Your task to perform on an android device: Open Google Image 0: 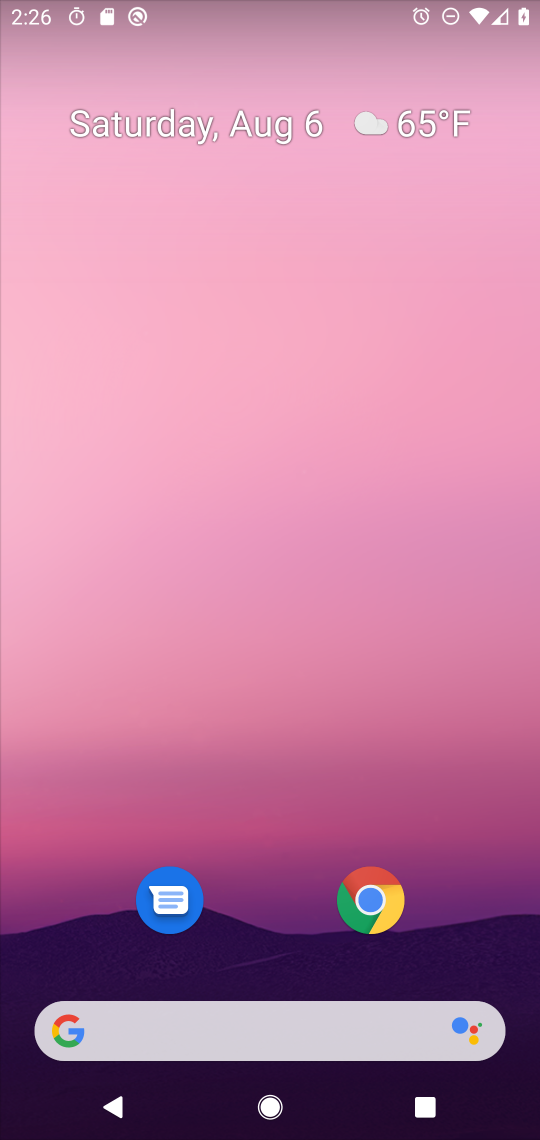
Step 0: drag from (286, 381) to (240, 1)
Your task to perform on an android device: Open Google Image 1: 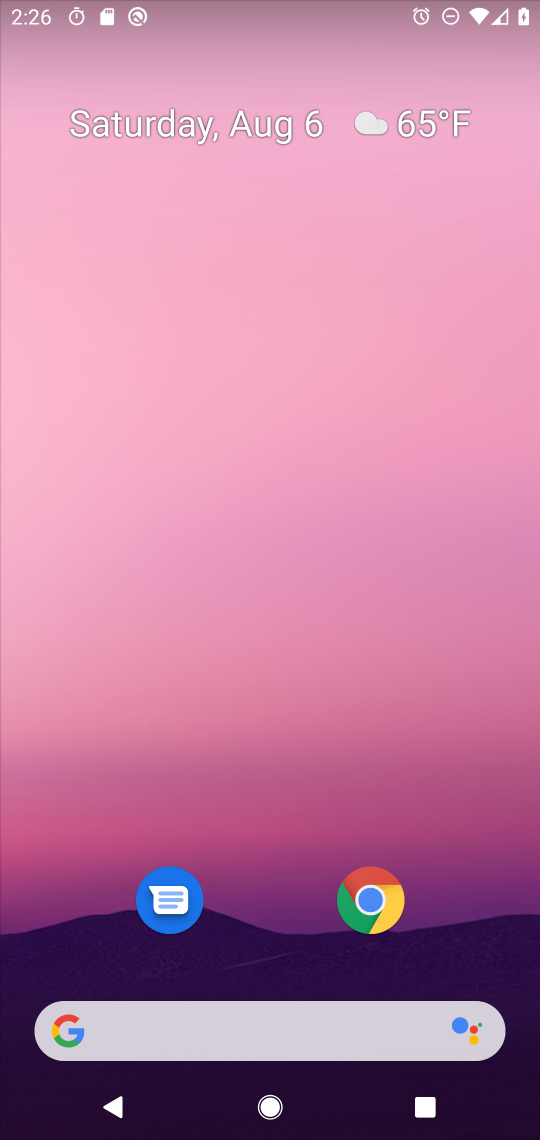
Step 1: drag from (221, 972) to (144, 141)
Your task to perform on an android device: Open Google Image 2: 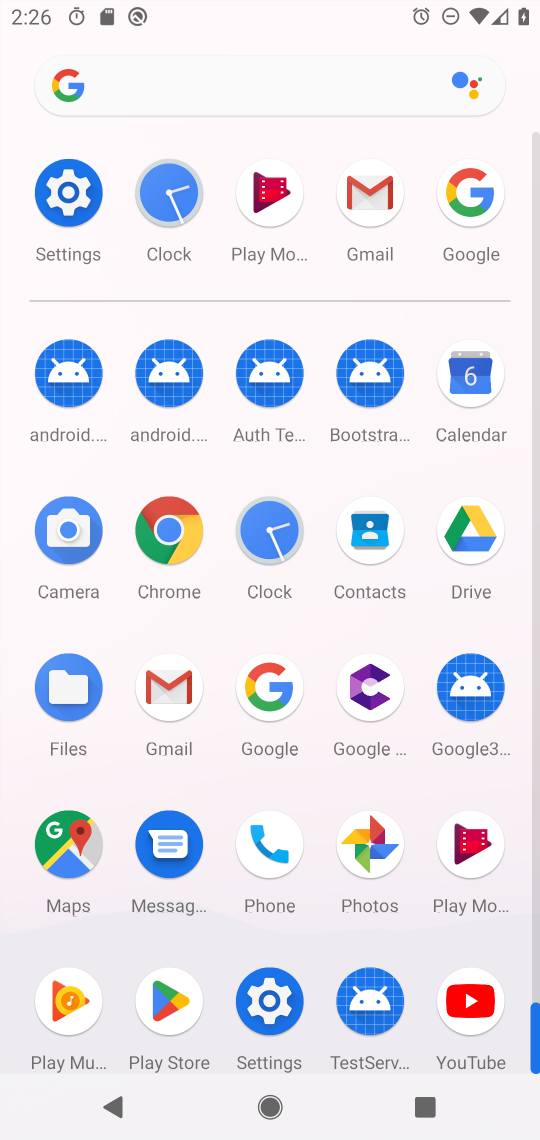
Step 2: click (259, 679)
Your task to perform on an android device: Open Google Image 3: 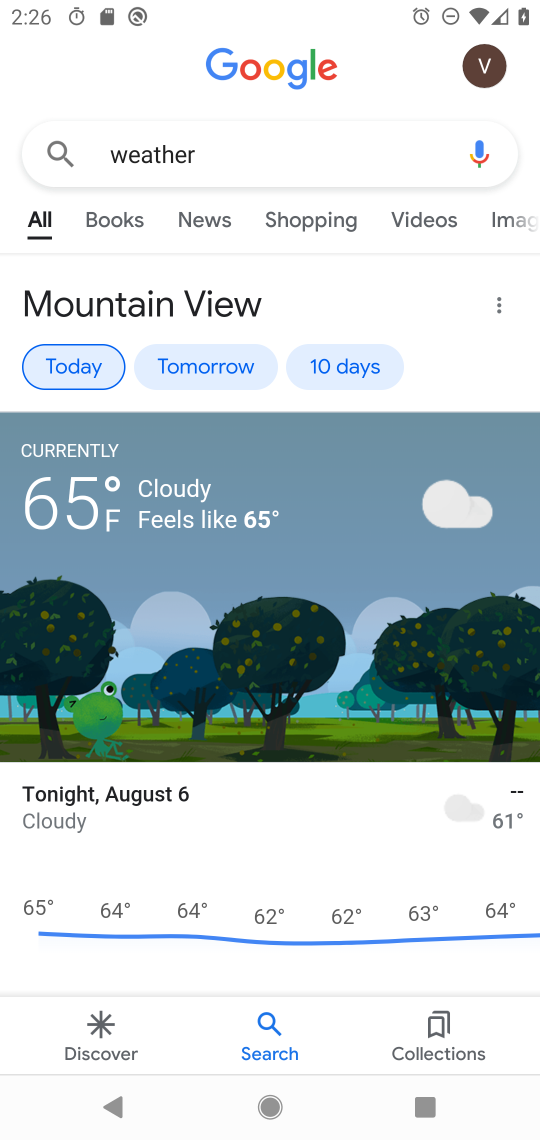
Step 3: task complete